Your task to perform on an android device: Open sound settings Image 0: 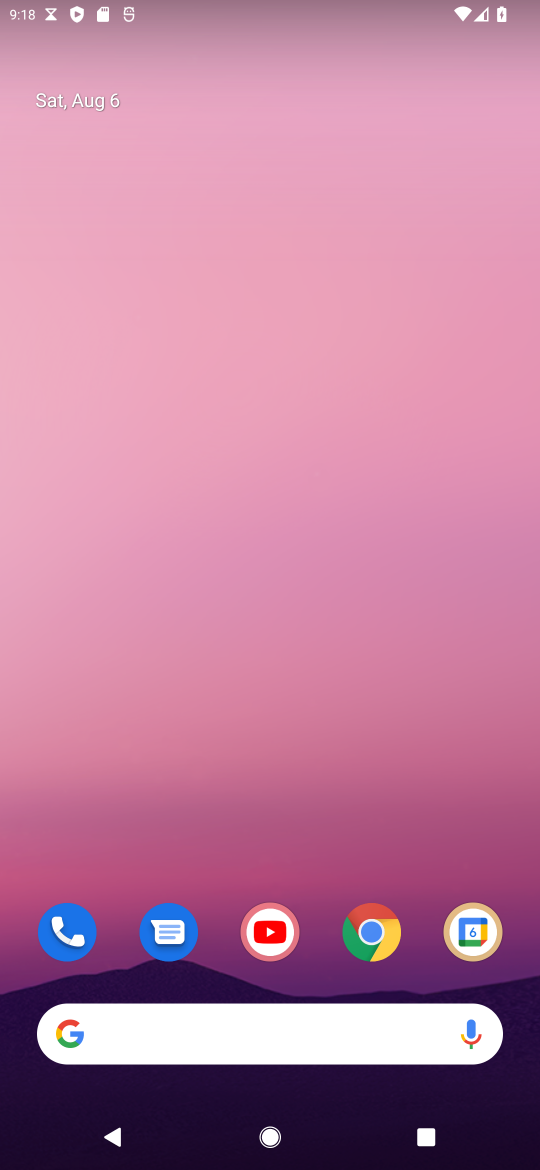
Step 0: drag from (213, 1056) to (284, 392)
Your task to perform on an android device: Open sound settings Image 1: 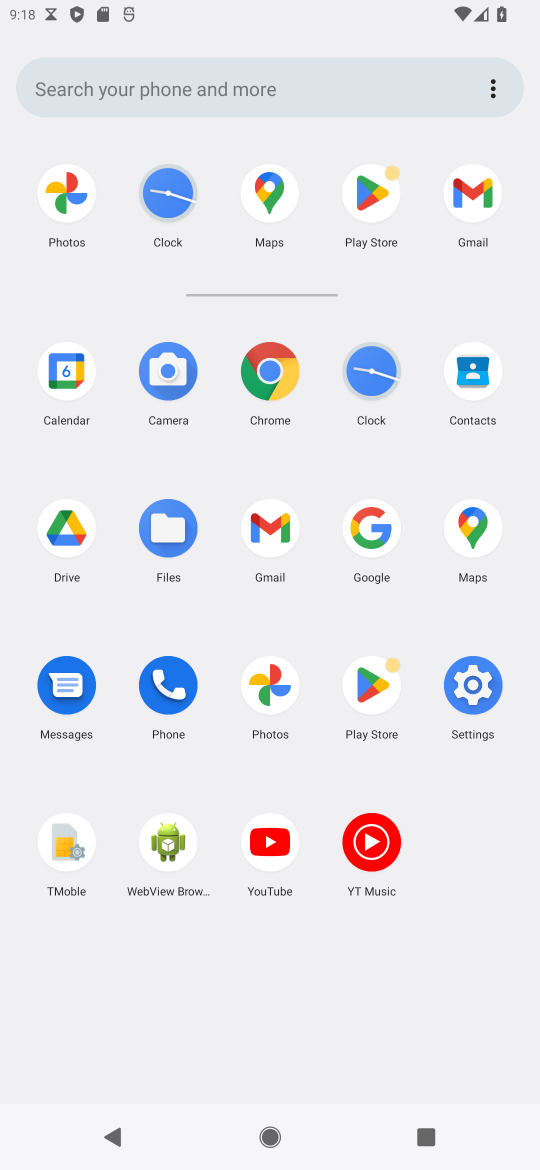
Step 1: click (475, 688)
Your task to perform on an android device: Open sound settings Image 2: 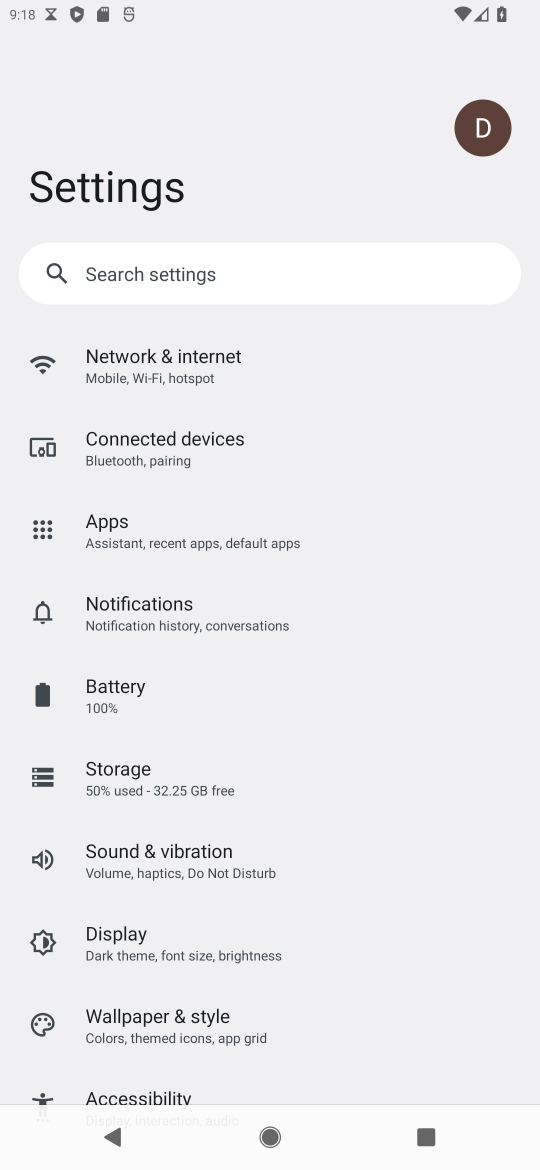
Step 2: drag from (146, 834) to (211, 754)
Your task to perform on an android device: Open sound settings Image 3: 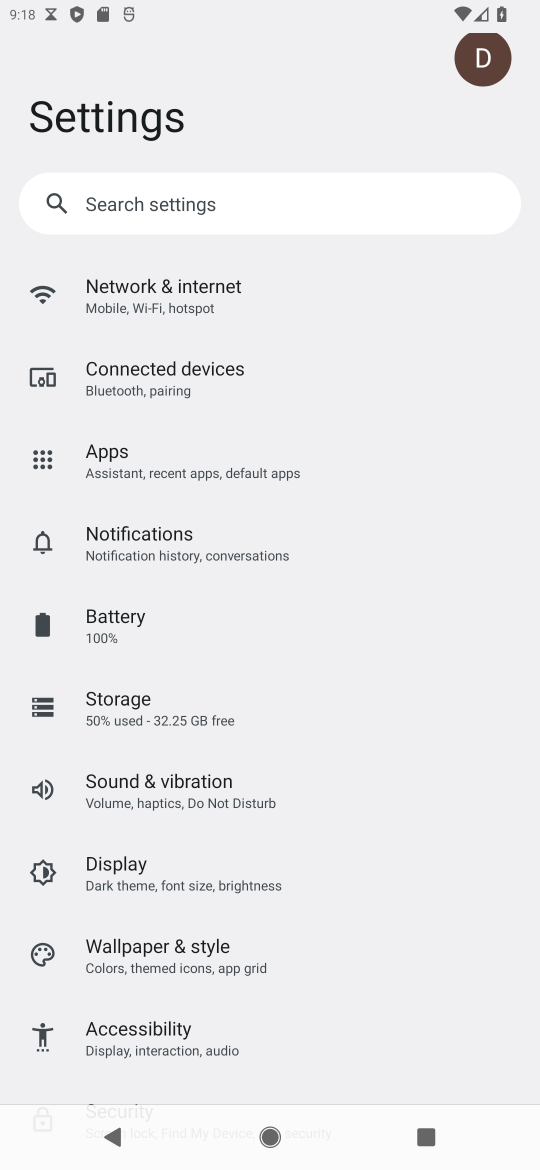
Step 3: drag from (151, 905) to (183, 758)
Your task to perform on an android device: Open sound settings Image 4: 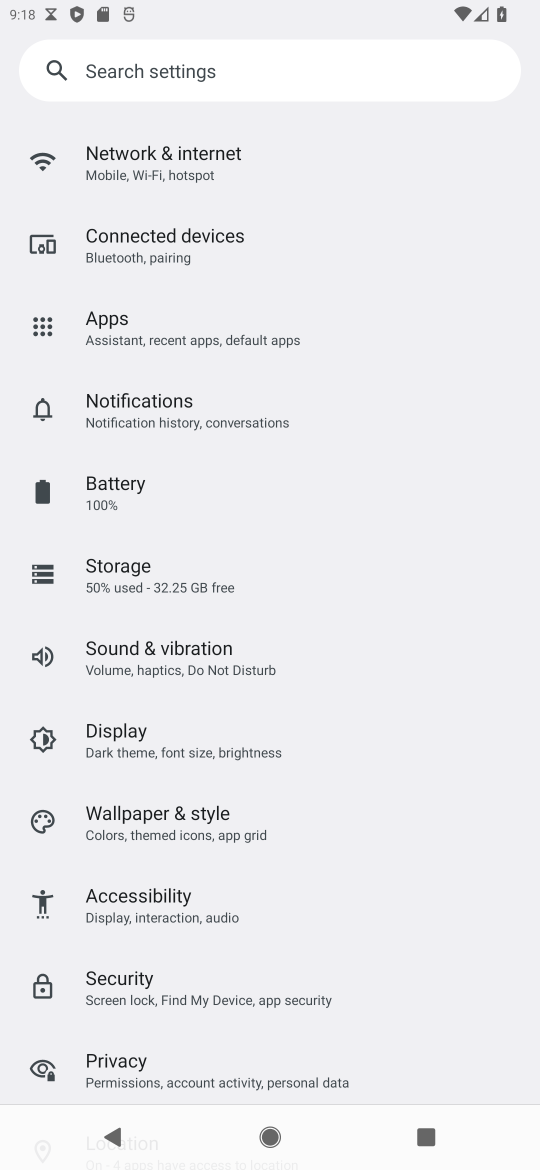
Step 4: drag from (133, 947) to (206, 800)
Your task to perform on an android device: Open sound settings Image 5: 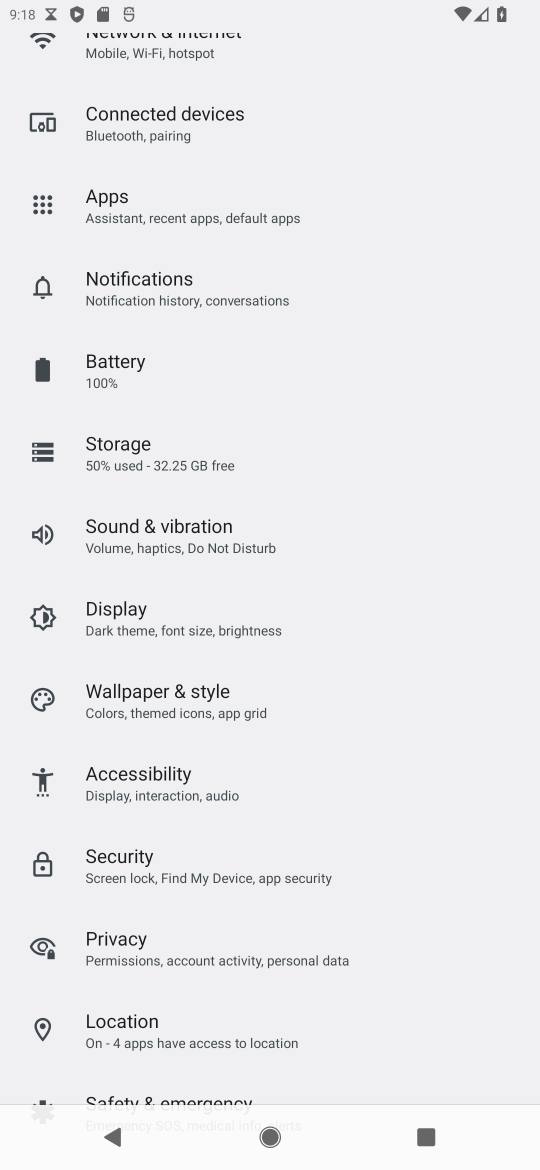
Step 5: click (209, 542)
Your task to perform on an android device: Open sound settings Image 6: 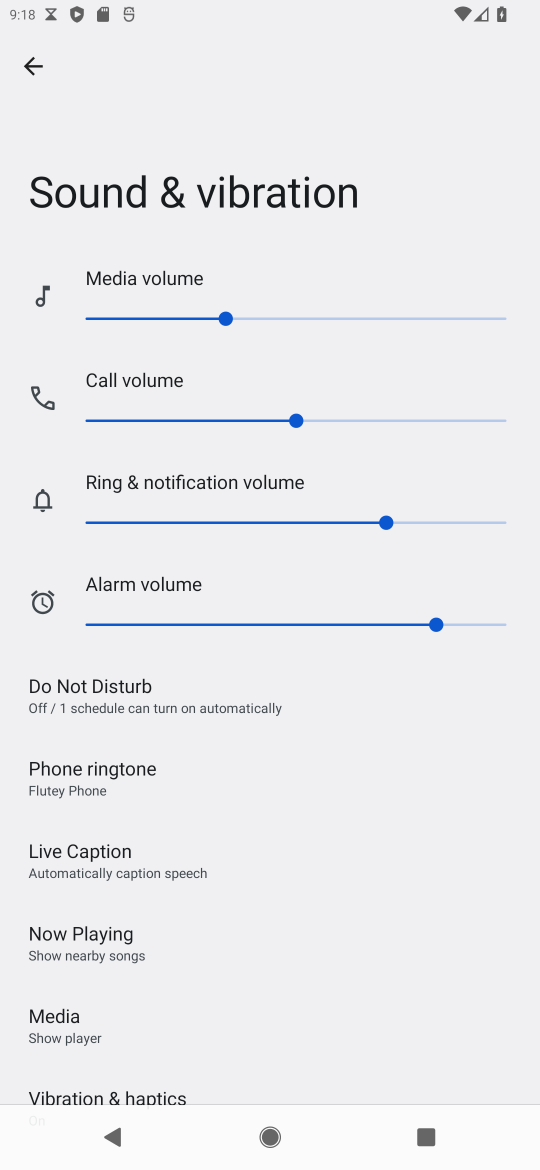
Step 6: task complete